Your task to perform on an android device: Open Youtube and go to "Your channel" Image 0: 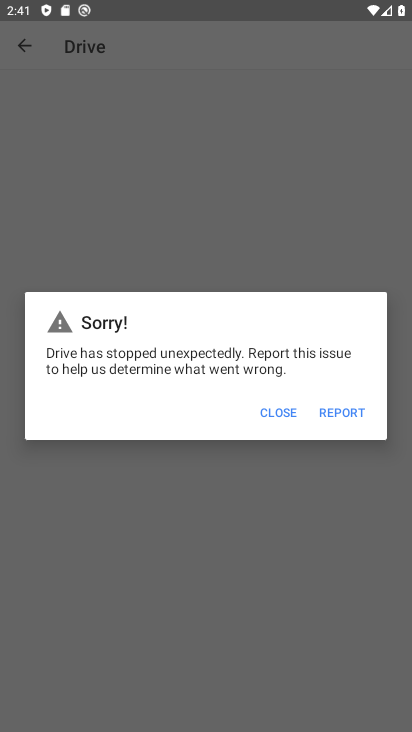
Step 0: click (271, 410)
Your task to perform on an android device: Open Youtube and go to "Your channel" Image 1: 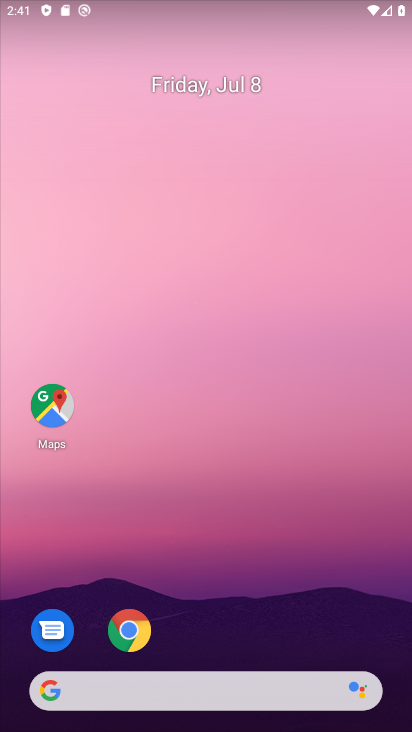
Step 1: drag from (272, 533) to (290, 320)
Your task to perform on an android device: Open Youtube and go to "Your channel" Image 2: 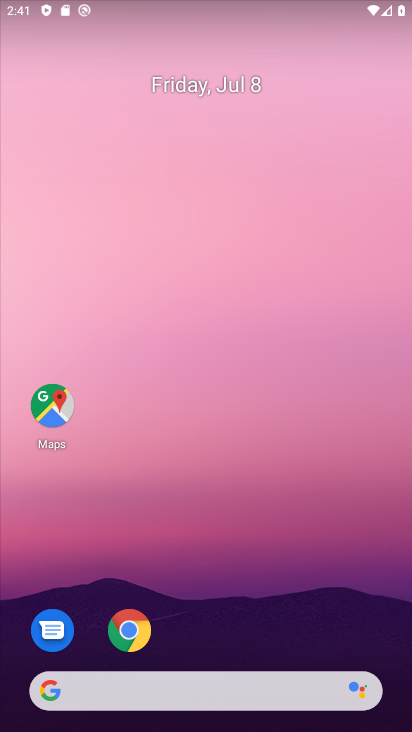
Step 2: drag from (234, 413) to (262, 210)
Your task to perform on an android device: Open Youtube and go to "Your channel" Image 3: 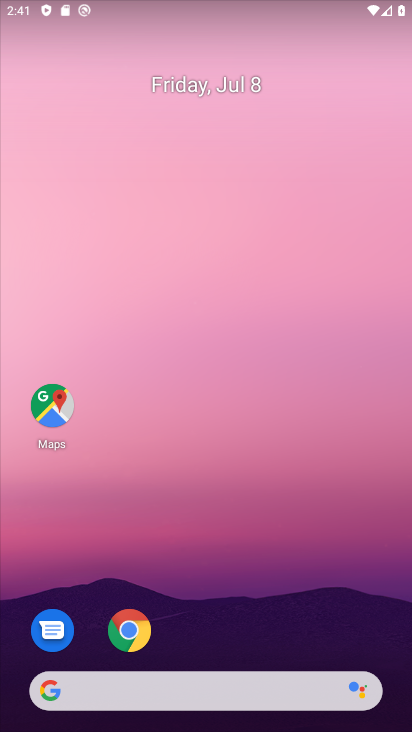
Step 3: drag from (264, 505) to (358, 8)
Your task to perform on an android device: Open Youtube and go to "Your channel" Image 4: 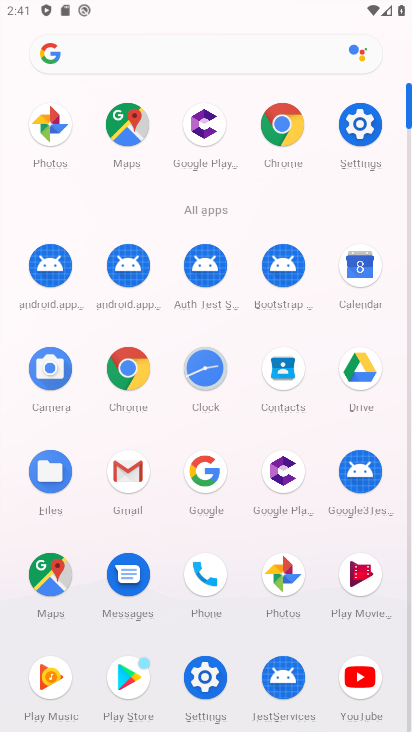
Step 4: click (360, 681)
Your task to perform on an android device: Open Youtube and go to "Your channel" Image 5: 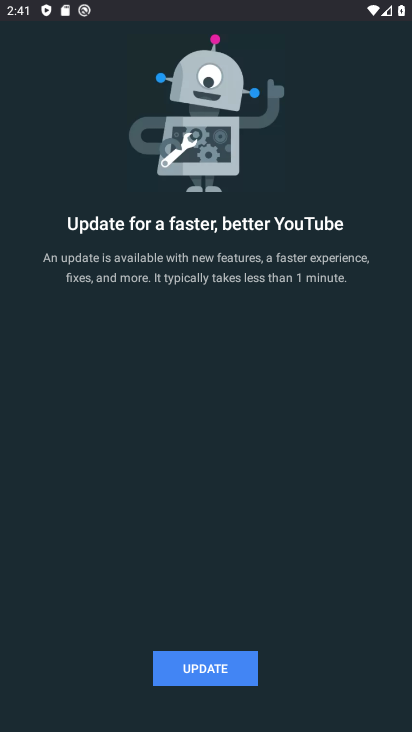
Step 5: task complete